Your task to perform on an android device: delete browsing data in the chrome app Image 0: 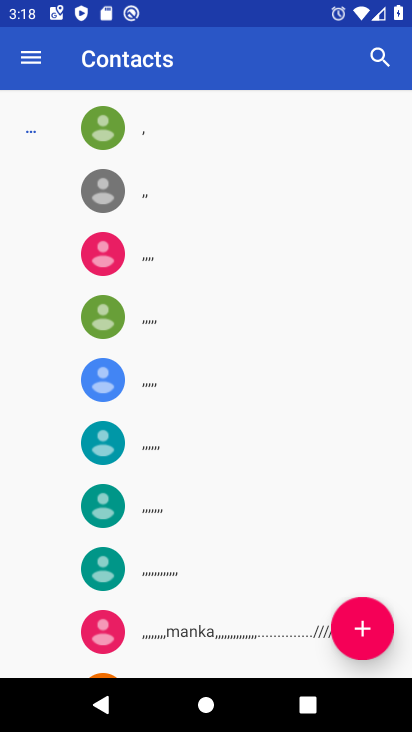
Step 0: press home button
Your task to perform on an android device: delete browsing data in the chrome app Image 1: 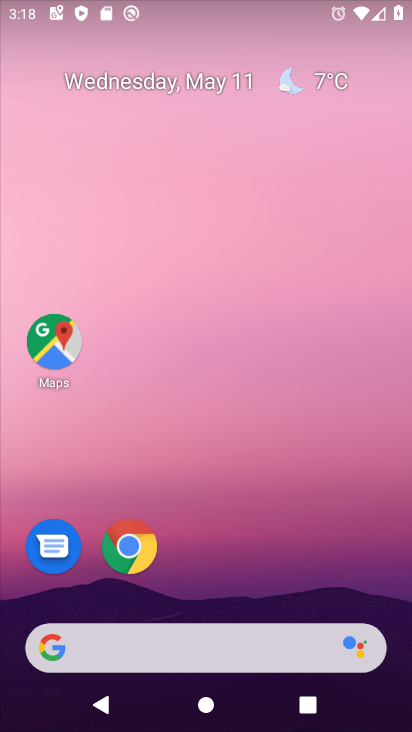
Step 1: drag from (217, 619) to (223, 19)
Your task to perform on an android device: delete browsing data in the chrome app Image 2: 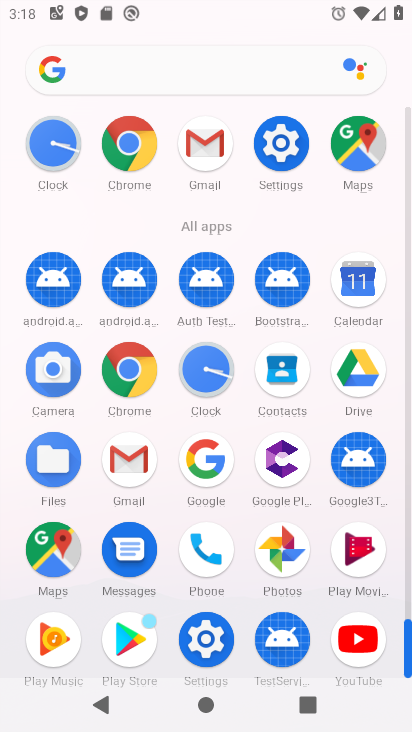
Step 2: click (119, 378)
Your task to perform on an android device: delete browsing data in the chrome app Image 3: 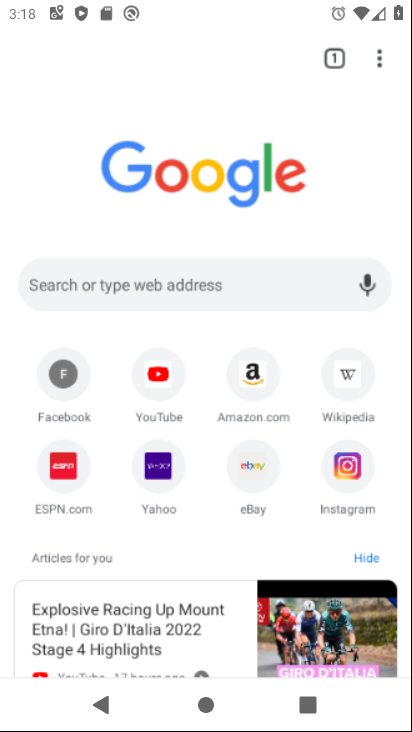
Step 3: click (374, 57)
Your task to perform on an android device: delete browsing data in the chrome app Image 4: 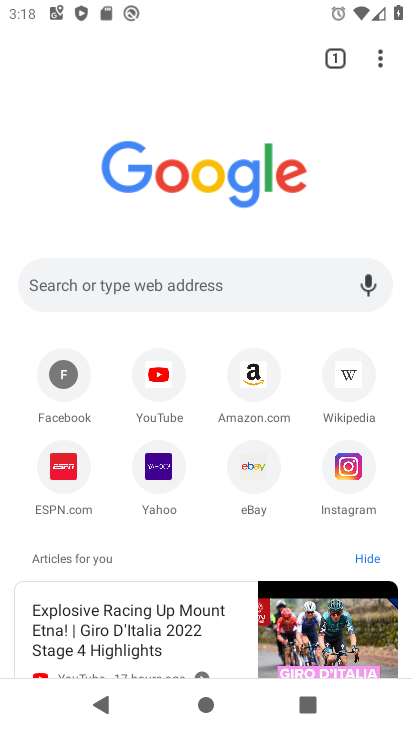
Step 4: click (379, 60)
Your task to perform on an android device: delete browsing data in the chrome app Image 5: 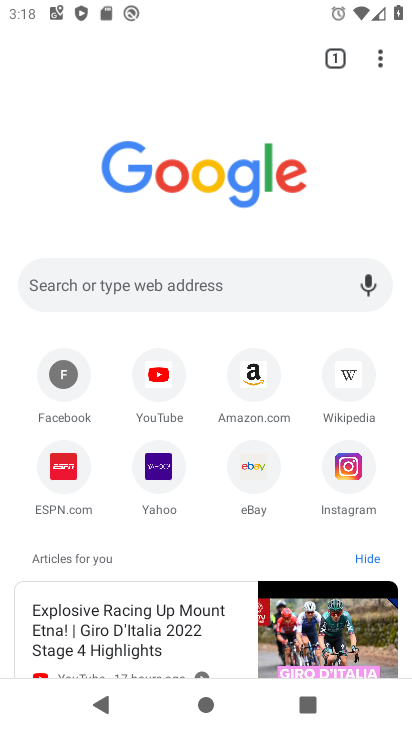
Step 5: drag from (381, 50) to (238, 497)
Your task to perform on an android device: delete browsing data in the chrome app Image 6: 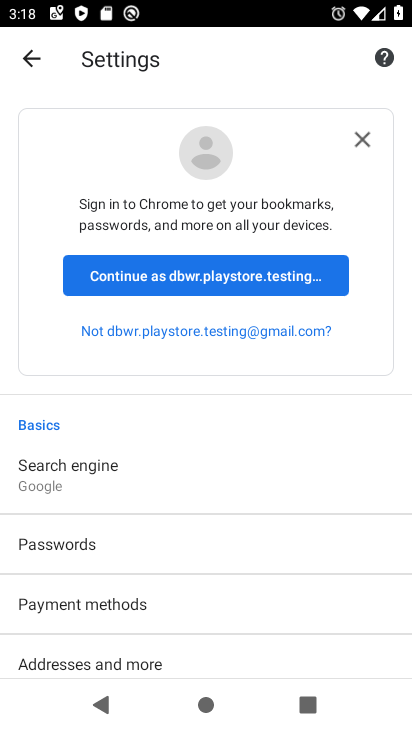
Step 6: drag from (179, 684) to (236, 94)
Your task to perform on an android device: delete browsing data in the chrome app Image 7: 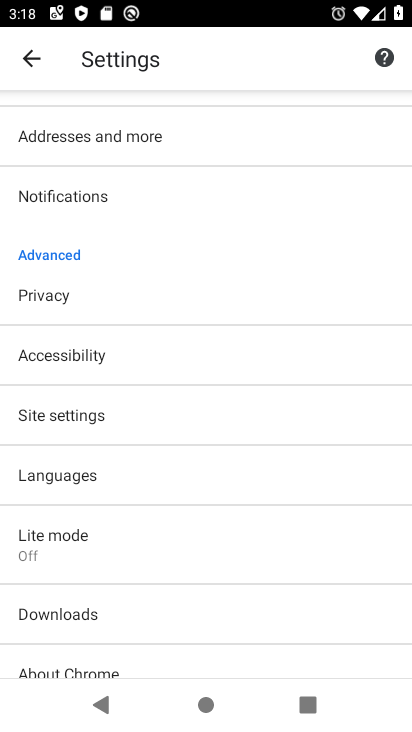
Step 7: click (86, 299)
Your task to perform on an android device: delete browsing data in the chrome app Image 8: 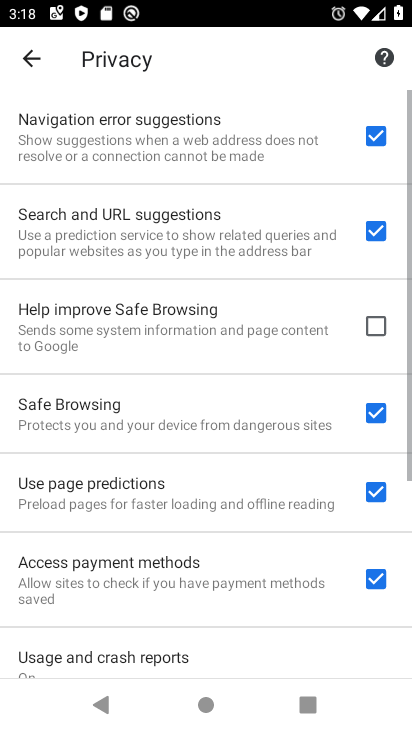
Step 8: drag from (169, 629) to (204, 53)
Your task to perform on an android device: delete browsing data in the chrome app Image 9: 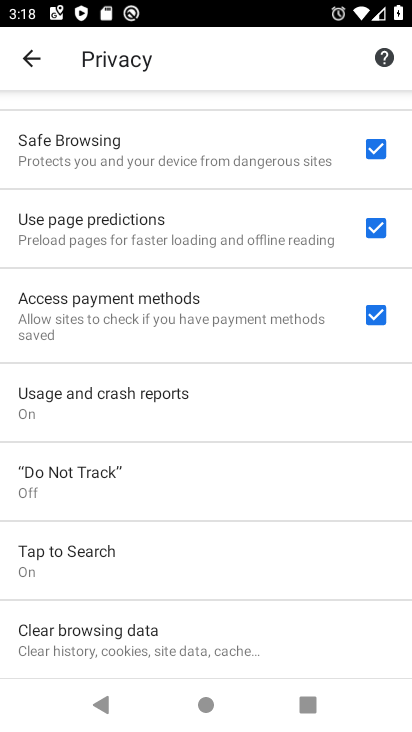
Step 9: click (245, 638)
Your task to perform on an android device: delete browsing data in the chrome app Image 10: 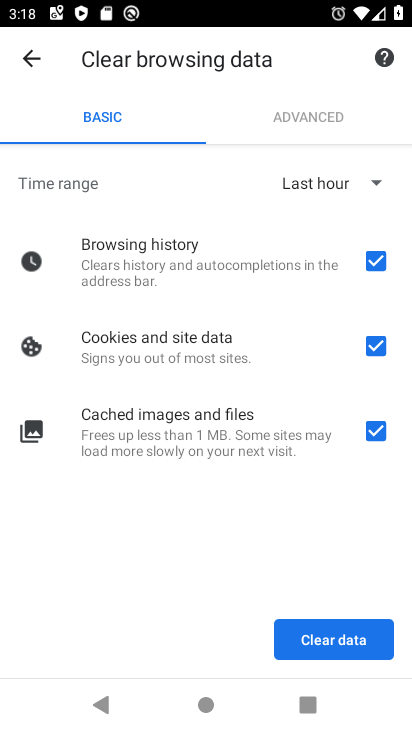
Step 10: click (395, 642)
Your task to perform on an android device: delete browsing data in the chrome app Image 11: 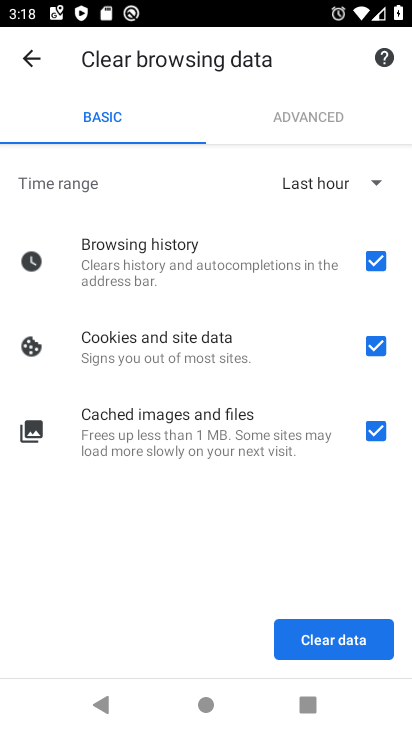
Step 11: click (390, 633)
Your task to perform on an android device: delete browsing data in the chrome app Image 12: 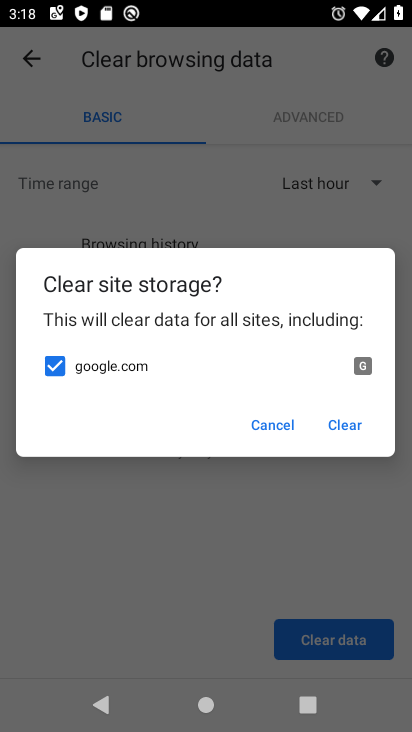
Step 12: click (345, 424)
Your task to perform on an android device: delete browsing data in the chrome app Image 13: 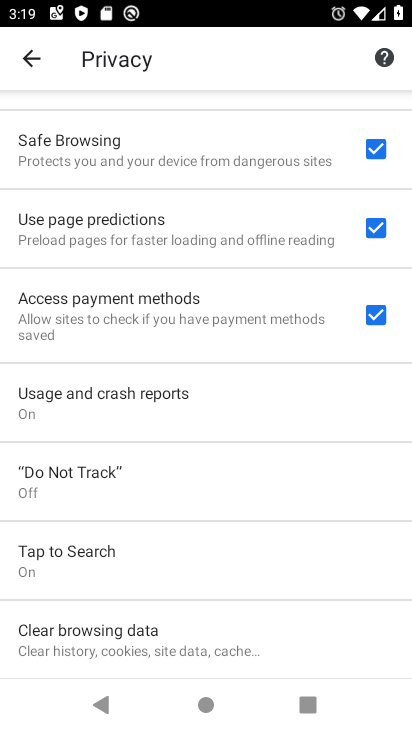
Step 13: task complete